Your task to perform on an android device: Open the web browser Image 0: 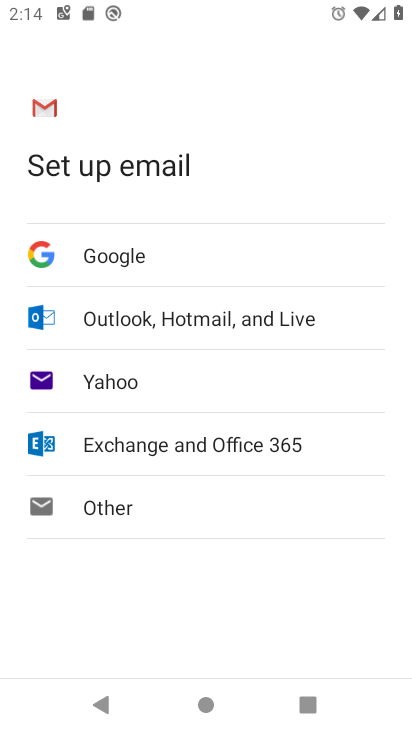
Step 0: press home button
Your task to perform on an android device: Open the web browser Image 1: 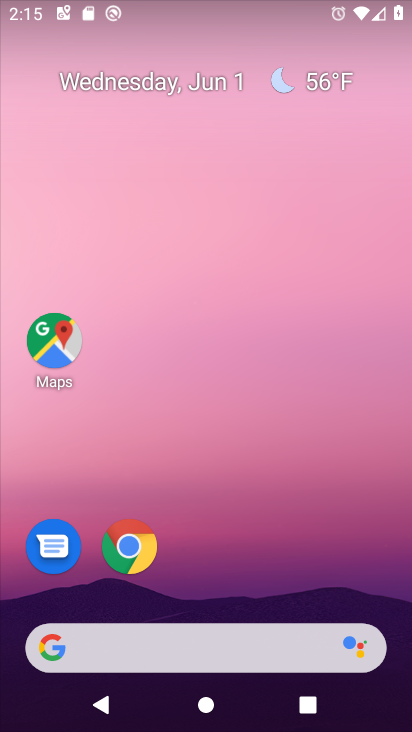
Step 1: click (115, 555)
Your task to perform on an android device: Open the web browser Image 2: 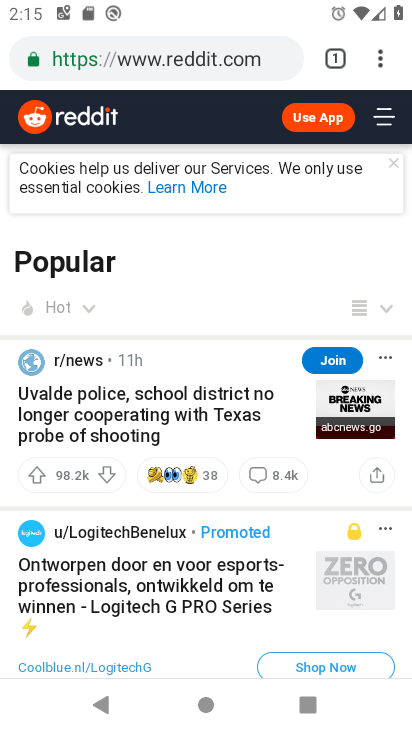
Step 2: task complete